Your task to perform on an android device: Set the phone to "Do not disturb". Image 0: 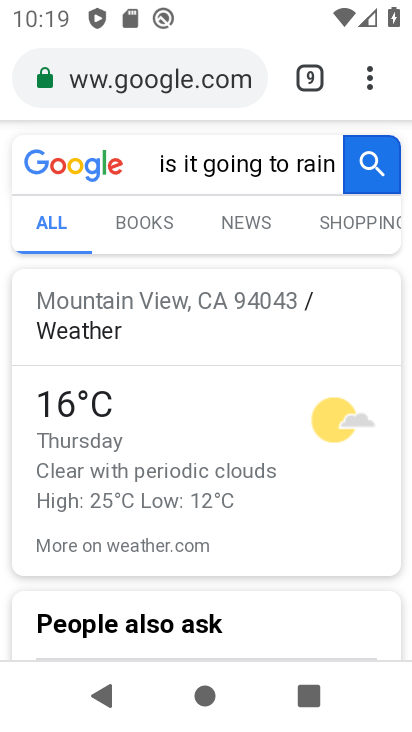
Step 0: press home button
Your task to perform on an android device: Set the phone to "Do not disturb". Image 1: 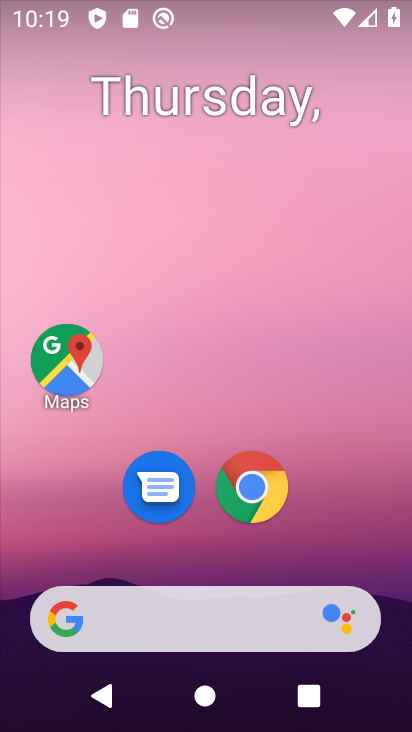
Step 1: drag from (316, 560) to (179, 184)
Your task to perform on an android device: Set the phone to "Do not disturb". Image 2: 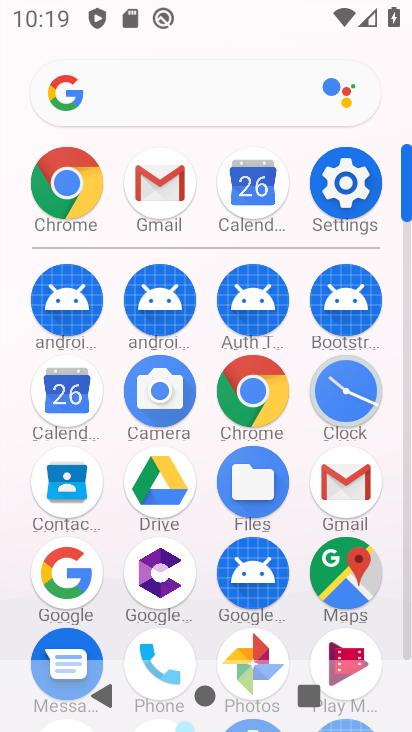
Step 2: click (337, 182)
Your task to perform on an android device: Set the phone to "Do not disturb". Image 3: 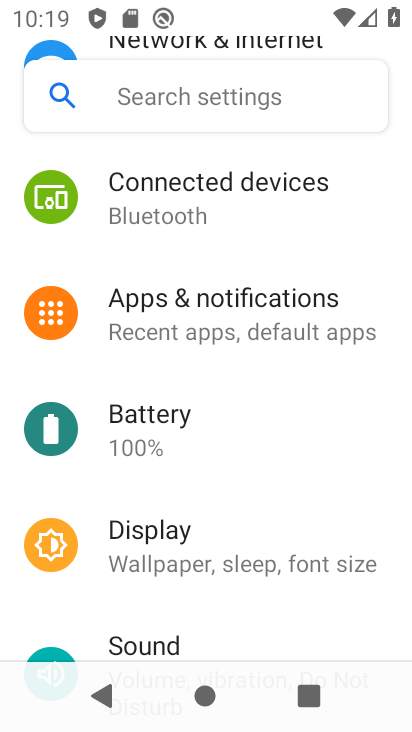
Step 3: drag from (243, 571) to (193, 275)
Your task to perform on an android device: Set the phone to "Do not disturb". Image 4: 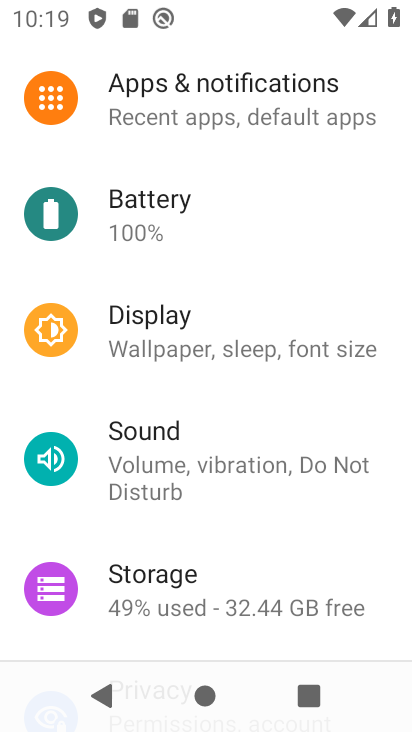
Step 4: click (174, 447)
Your task to perform on an android device: Set the phone to "Do not disturb". Image 5: 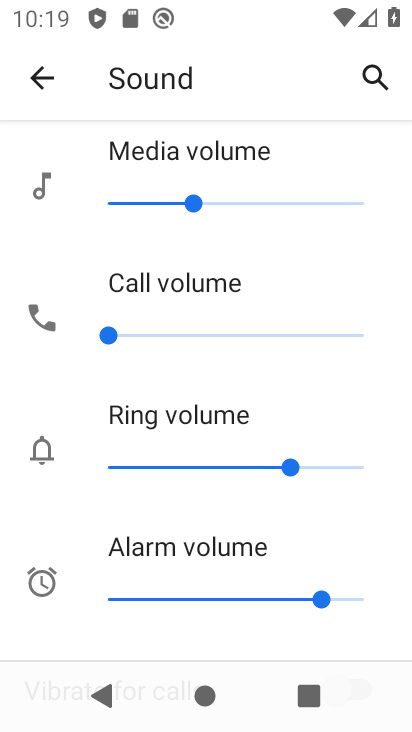
Step 5: drag from (113, 599) to (108, 287)
Your task to perform on an android device: Set the phone to "Do not disturb". Image 6: 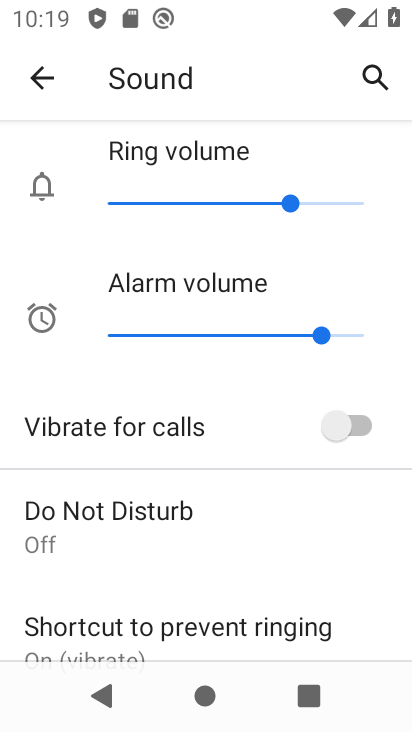
Step 6: click (80, 521)
Your task to perform on an android device: Set the phone to "Do not disturb". Image 7: 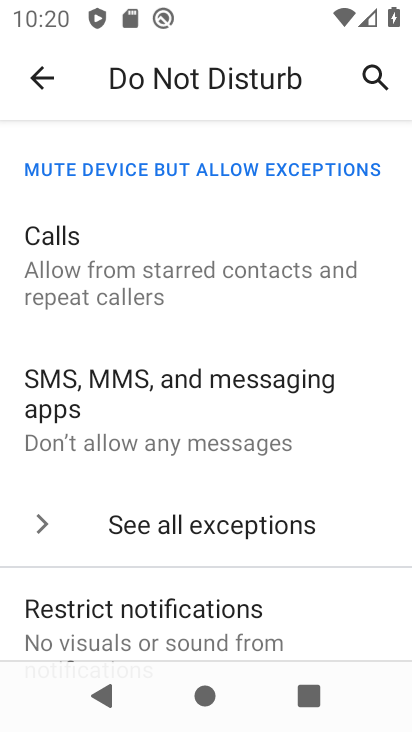
Step 7: drag from (143, 583) to (133, 195)
Your task to perform on an android device: Set the phone to "Do not disturb". Image 8: 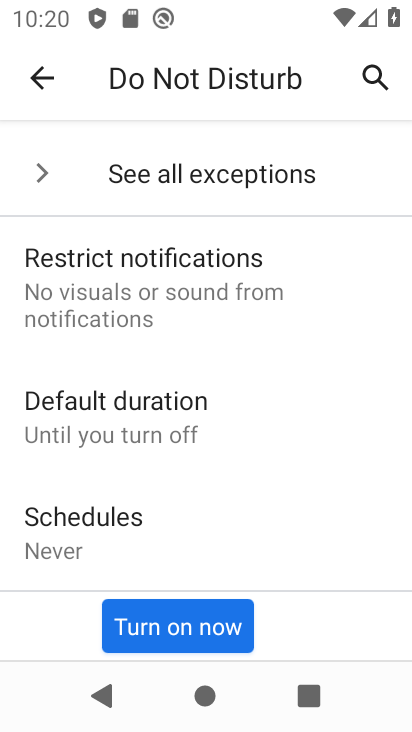
Step 8: click (169, 622)
Your task to perform on an android device: Set the phone to "Do not disturb". Image 9: 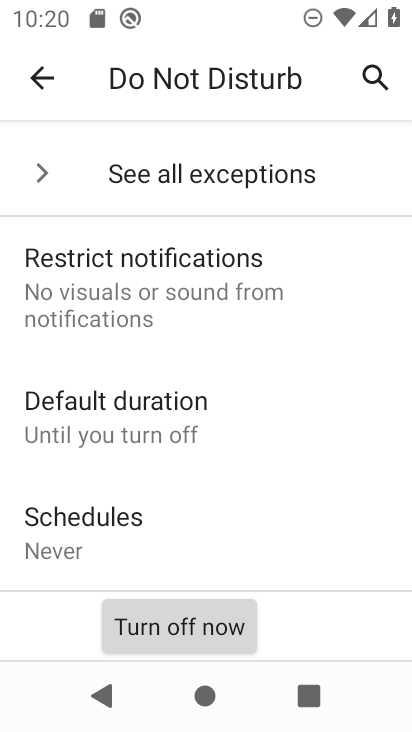
Step 9: task complete